Your task to perform on an android device: turn pop-ups on in chrome Image 0: 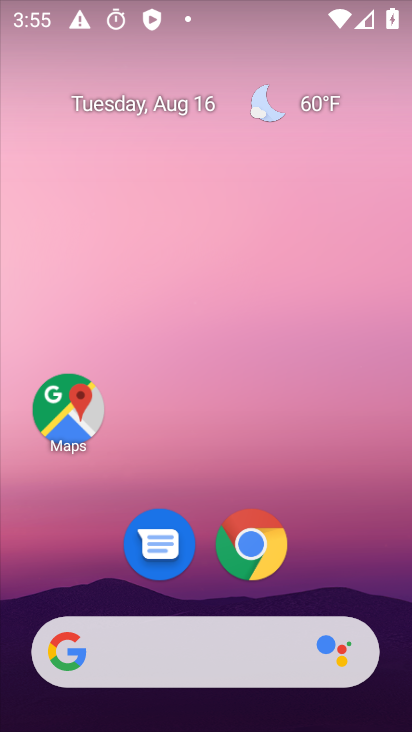
Step 0: drag from (389, 618) to (230, 27)
Your task to perform on an android device: turn pop-ups on in chrome Image 1: 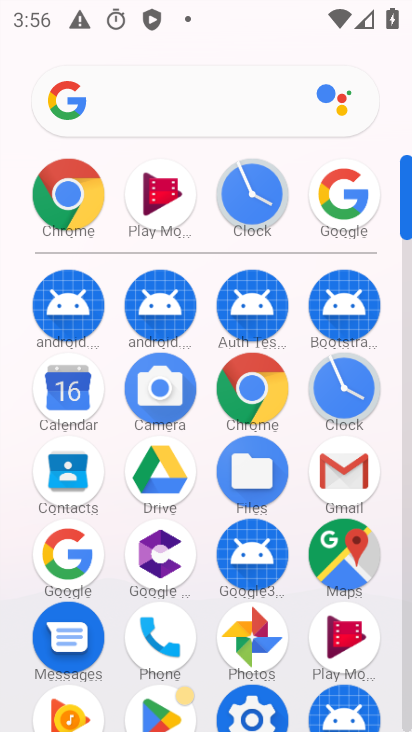
Step 1: click (231, 382)
Your task to perform on an android device: turn pop-ups on in chrome Image 2: 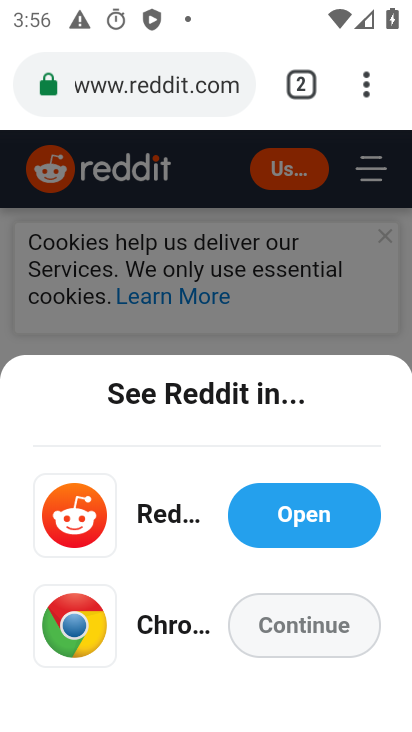
Step 2: click (364, 81)
Your task to perform on an android device: turn pop-ups on in chrome Image 3: 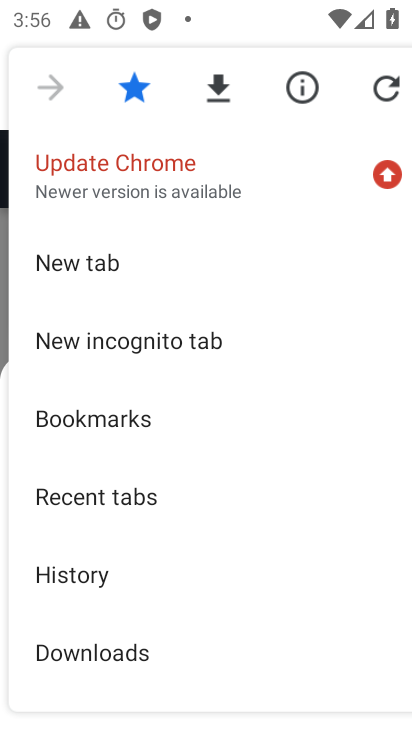
Step 3: drag from (200, 560) to (133, 90)
Your task to perform on an android device: turn pop-ups on in chrome Image 4: 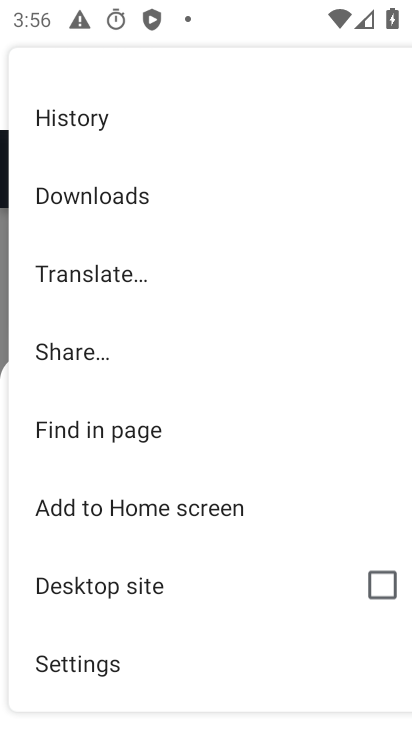
Step 4: click (81, 673)
Your task to perform on an android device: turn pop-ups on in chrome Image 5: 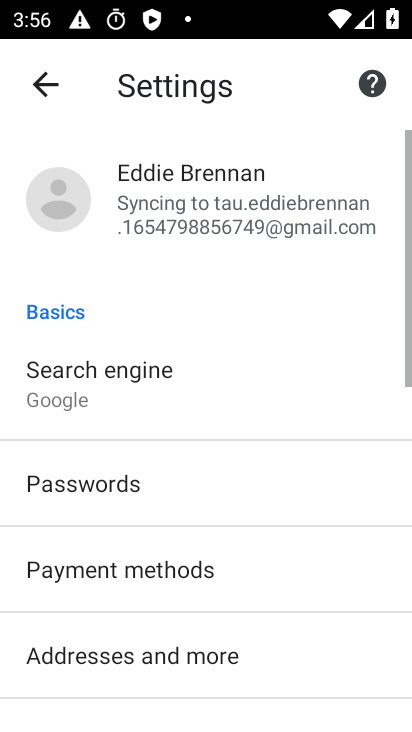
Step 5: drag from (81, 658) to (116, 88)
Your task to perform on an android device: turn pop-ups on in chrome Image 6: 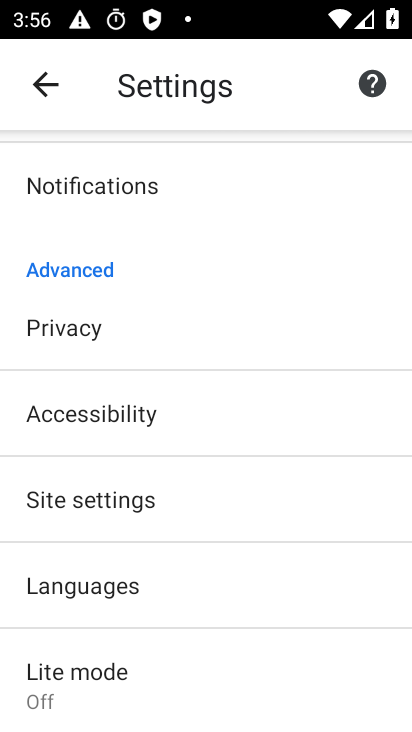
Step 6: click (137, 519)
Your task to perform on an android device: turn pop-ups on in chrome Image 7: 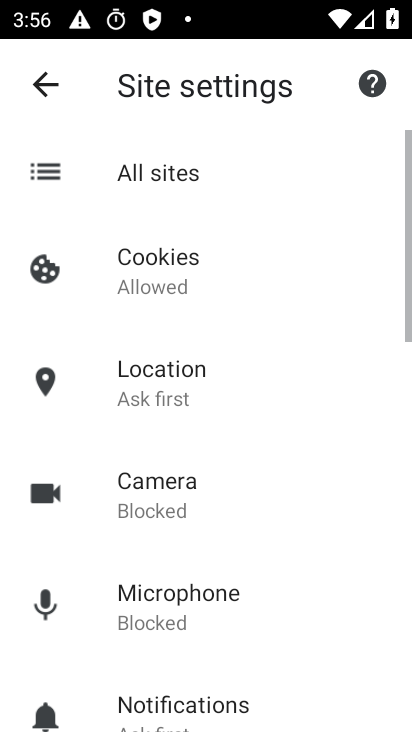
Step 7: drag from (212, 688) to (155, 140)
Your task to perform on an android device: turn pop-ups on in chrome Image 8: 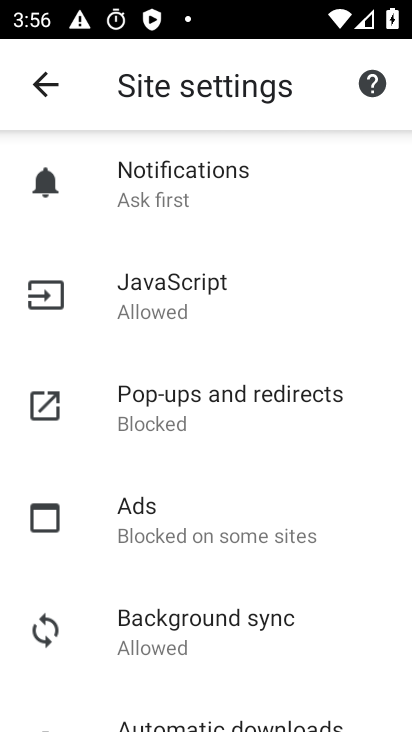
Step 8: click (215, 410)
Your task to perform on an android device: turn pop-ups on in chrome Image 9: 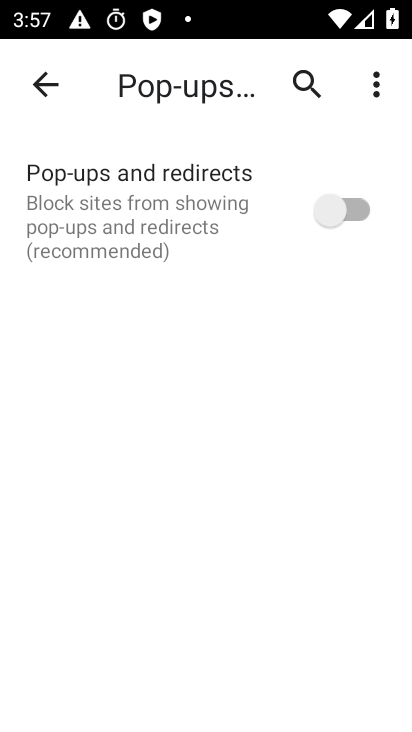
Step 9: click (322, 217)
Your task to perform on an android device: turn pop-ups on in chrome Image 10: 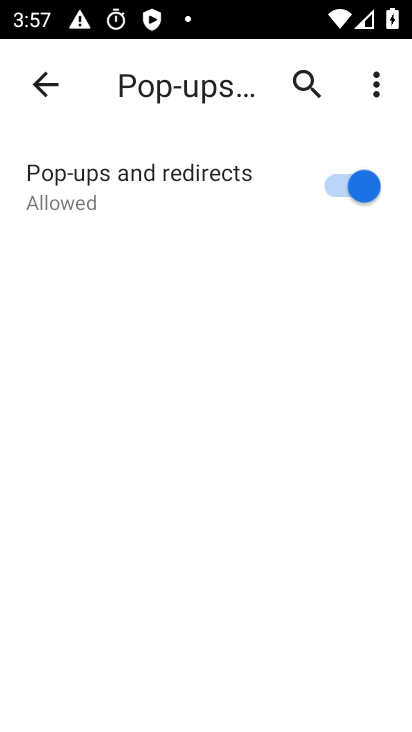
Step 10: task complete